Your task to perform on an android device: Set the phone to "Do not disturb". Image 0: 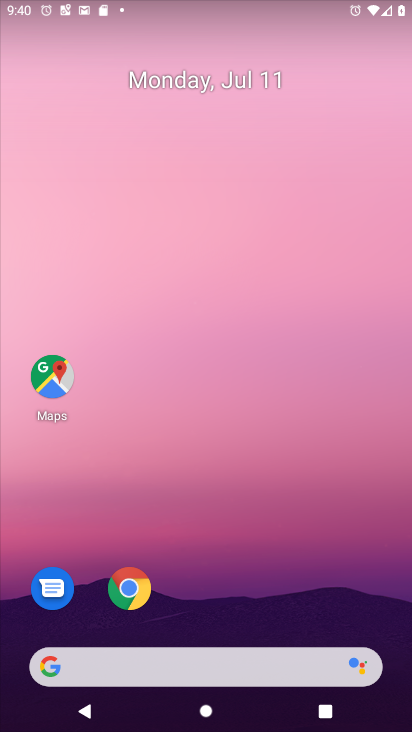
Step 0: drag from (203, 663) to (272, 171)
Your task to perform on an android device: Set the phone to "Do not disturb". Image 1: 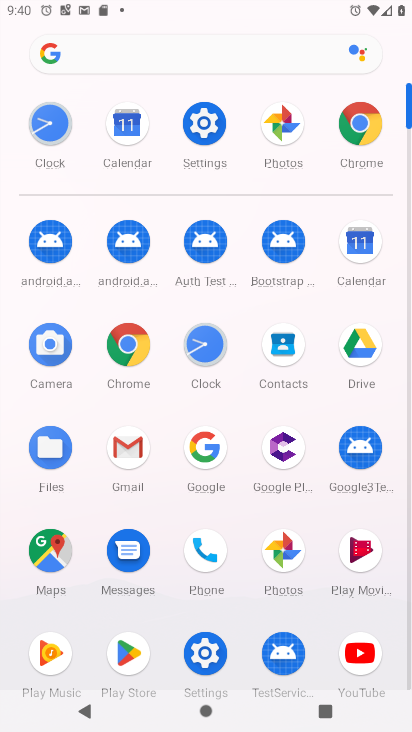
Step 1: click (209, 124)
Your task to perform on an android device: Set the phone to "Do not disturb". Image 2: 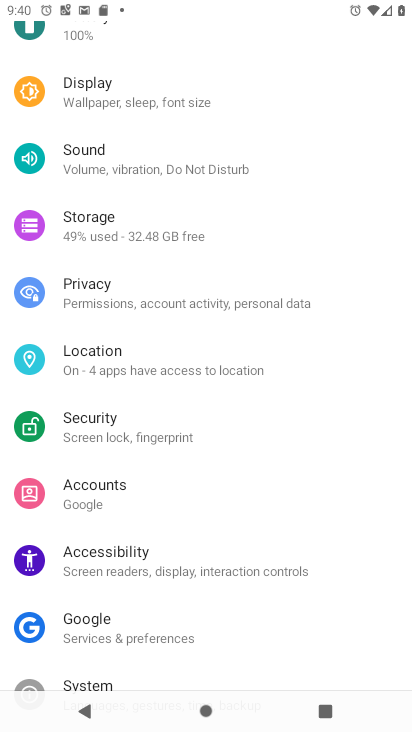
Step 2: drag from (154, 624) to (229, 225)
Your task to perform on an android device: Set the phone to "Do not disturb". Image 3: 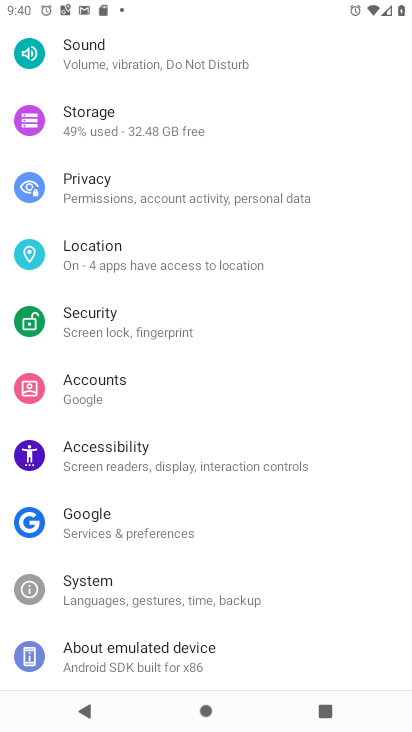
Step 3: drag from (202, 177) to (207, 438)
Your task to perform on an android device: Set the phone to "Do not disturb". Image 4: 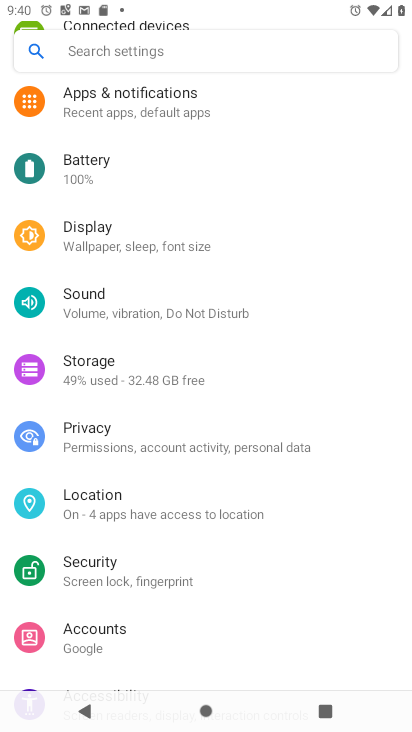
Step 4: click (158, 303)
Your task to perform on an android device: Set the phone to "Do not disturb". Image 5: 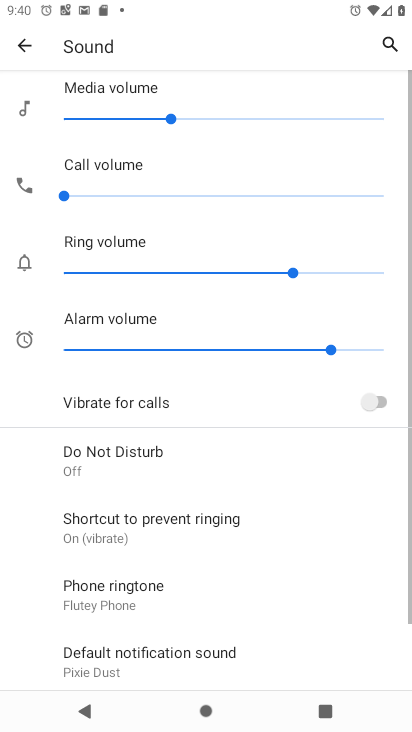
Step 5: click (107, 441)
Your task to perform on an android device: Set the phone to "Do not disturb". Image 6: 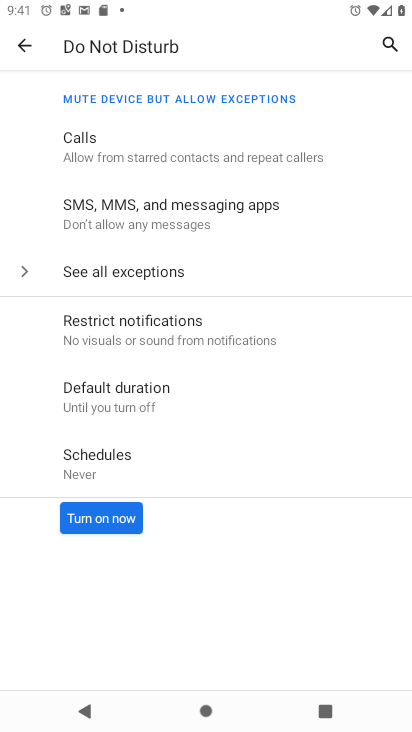
Step 6: click (94, 510)
Your task to perform on an android device: Set the phone to "Do not disturb". Image 7: 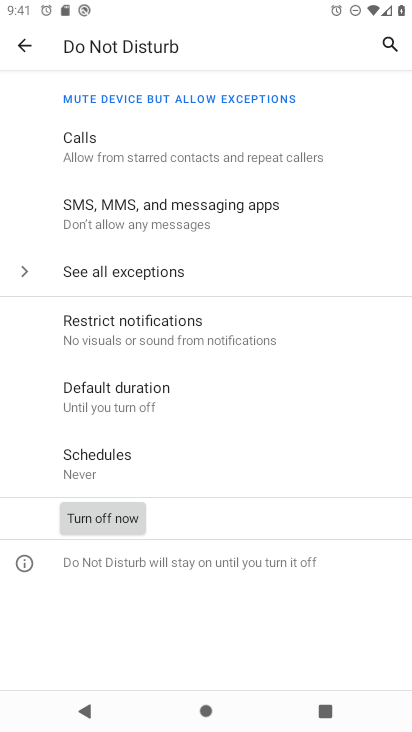
Step 7: task complete